Your task to perform on an android device: When is my next appointment? Image 0: 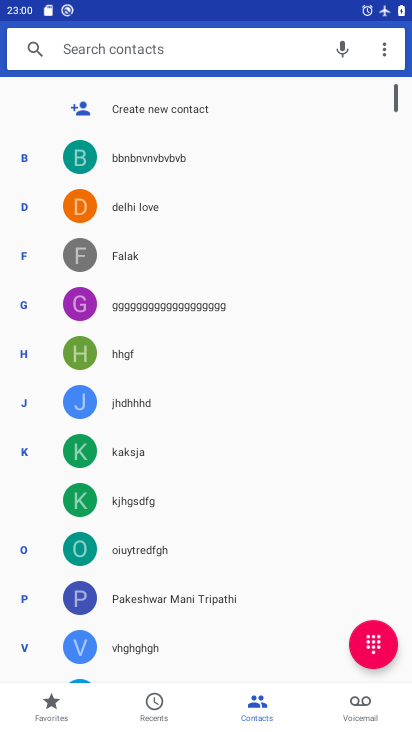
Step 0: press home button
Your task to perform on an android device: When is my next appointment? Image 1: 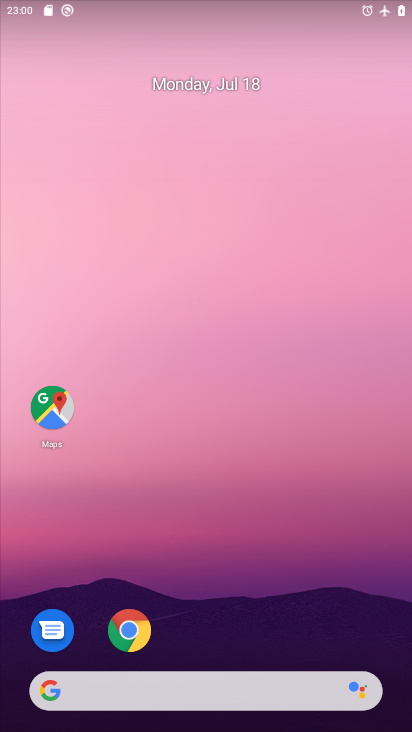
Step 1: drag from (278, 574) to (278, 152)
Your task to perform on an android device: When is my next appointment? Image 2: 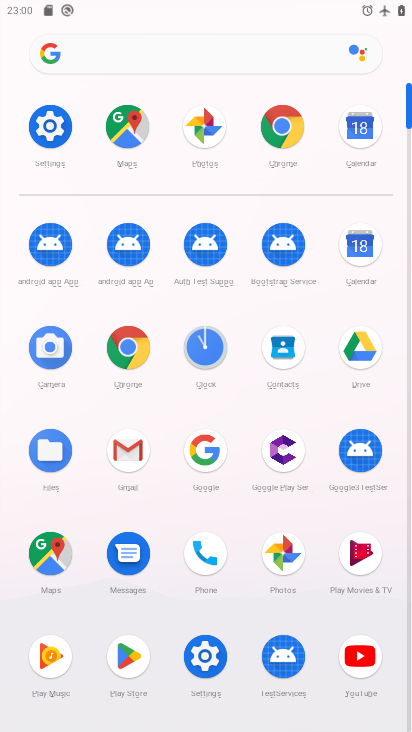
Step 2: click (368, 250)
Your task to perform on an android device: When is my next appointment? Image 3: 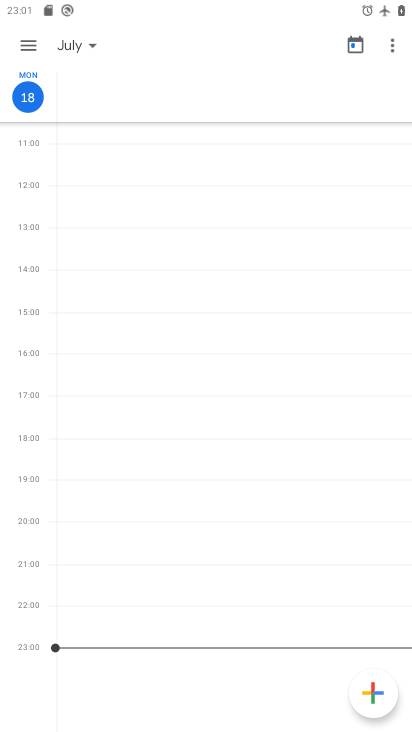
Step 3: drag from (74, 476) to (111, 98)
Your task to perform on an android device: When is my next appointment? Image 4: 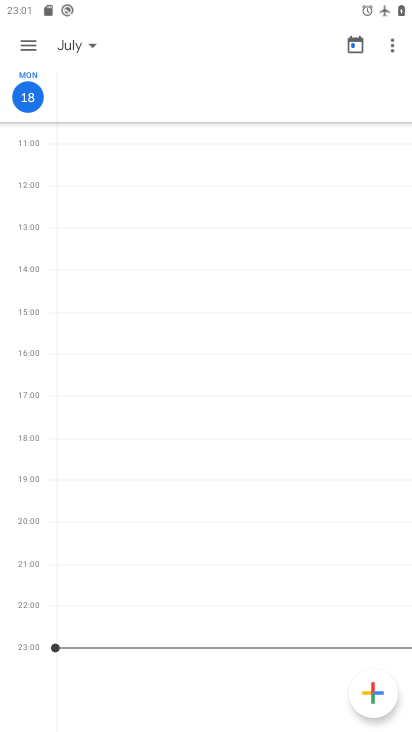
Step 4: drag from (26, 552) to (68, 282)
Your task to perform on an android device: When is my next appointment? Image 5: 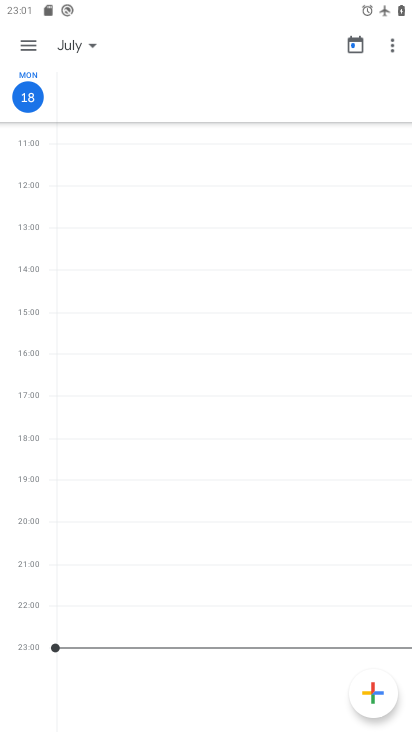
Step 5: click (32, 43)
Your task to perform on an android device: When is my next appointment? Image 6: 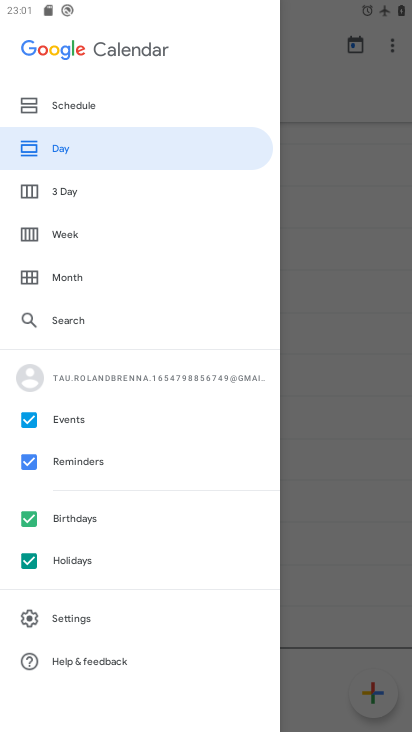
Step 6: click (61, 230)
Your task to perform on an android device: When is my next appointment? Image 7: 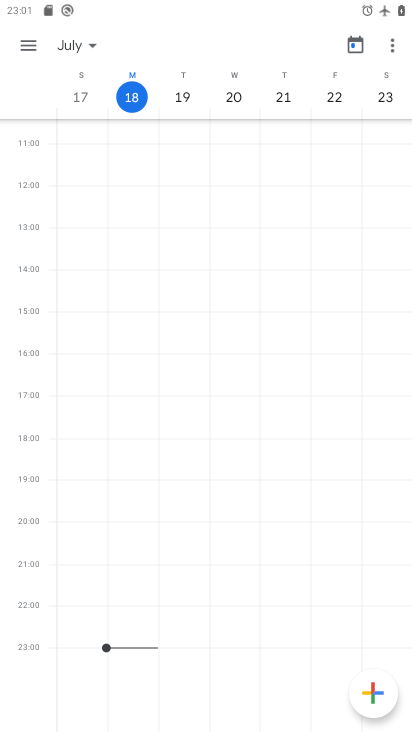
Step 7: click (180, 73)
Your task to perform on an android device: When is my next appointment? Image 8: 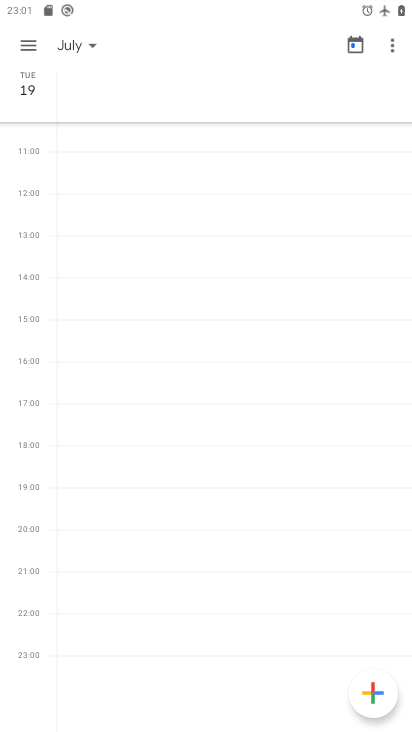
Step 8: task complete